Your task to perform on an android device: Open display settings Image 0: 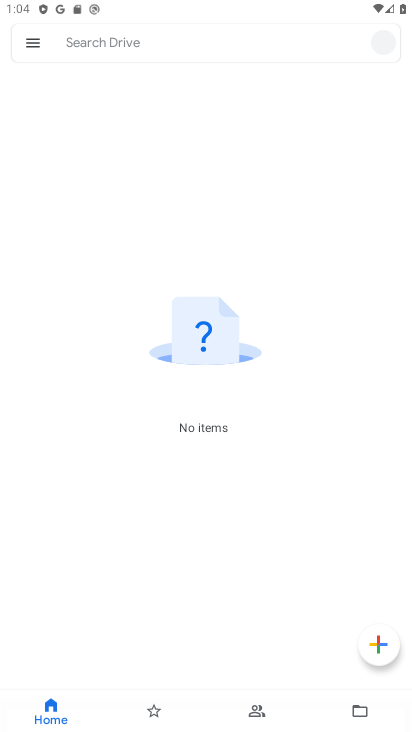
Step 0: press home button
Your task to perform on an android device: Open display settings Image 1: 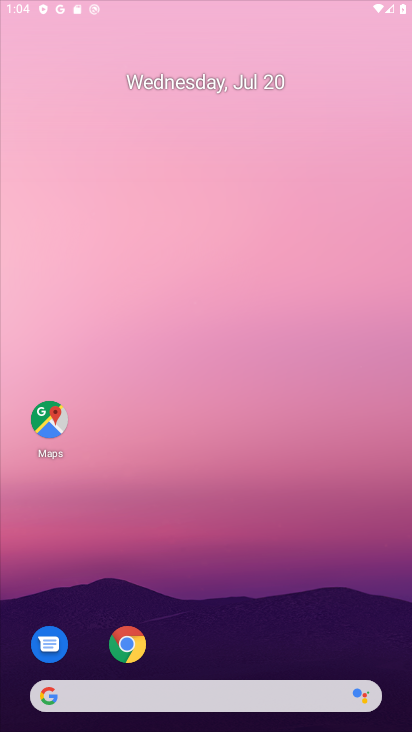
Step 1: drag from (232, 559) to (283, 6)
Your task to perform on an android device: Open display settings Image 2: 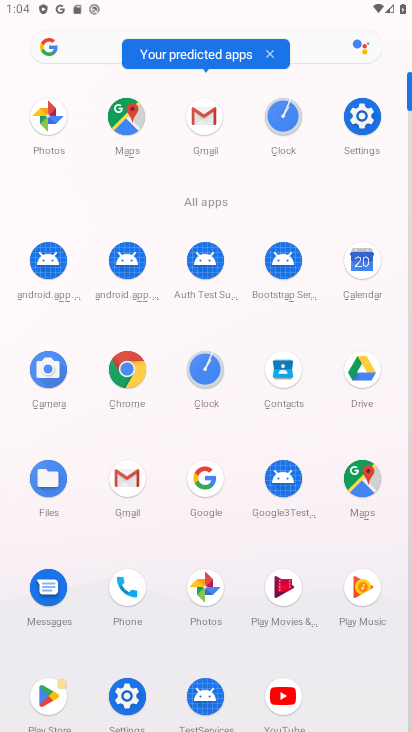
Step 2: click (371, 112)
Your task to perform on an android device: Open display settings Image 3: 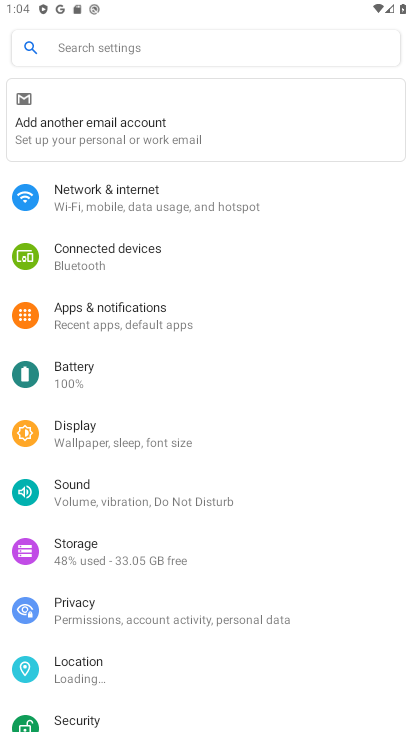
Step 3: click (84, 432)
Your task to perform on an android device: Open display settings Image 4: 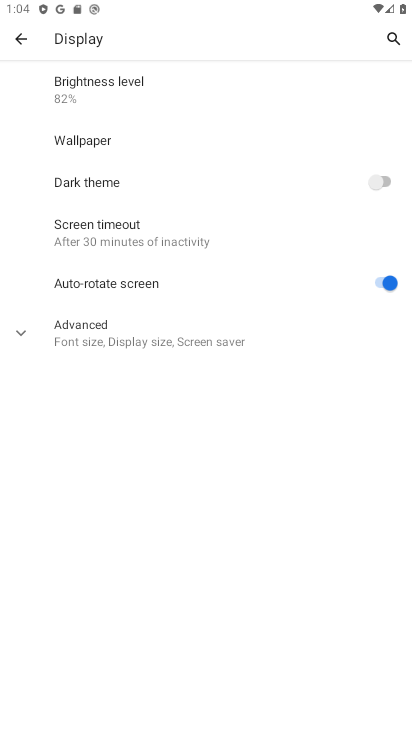
Step 4: task complete